Your task to perform on an android device: turn on notifications settings in the gmail app Image 0: 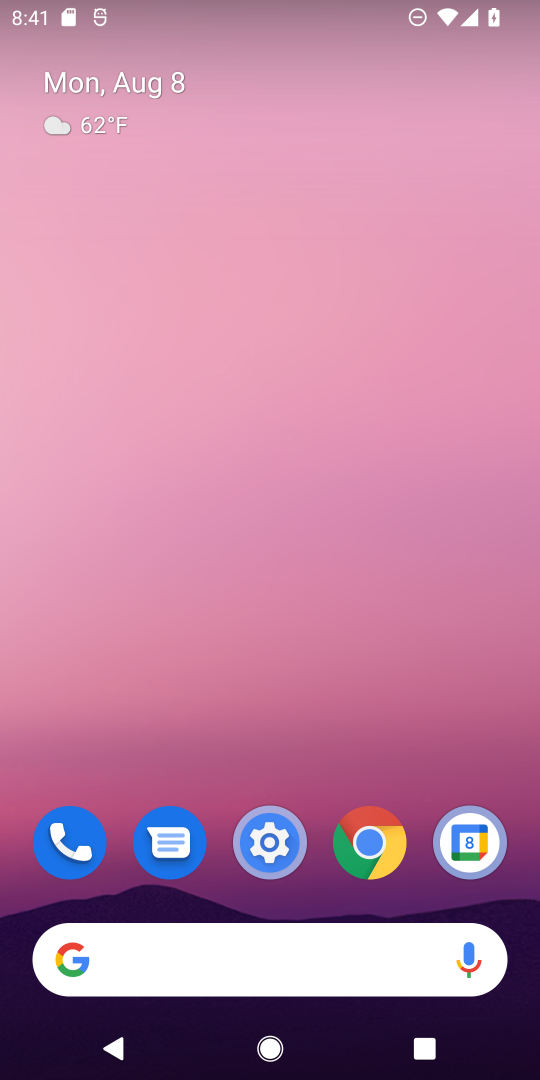
Step 0: click (271, 826)
Your task to perform on an android device: turn on notifications settings in the gmail app Image 1: 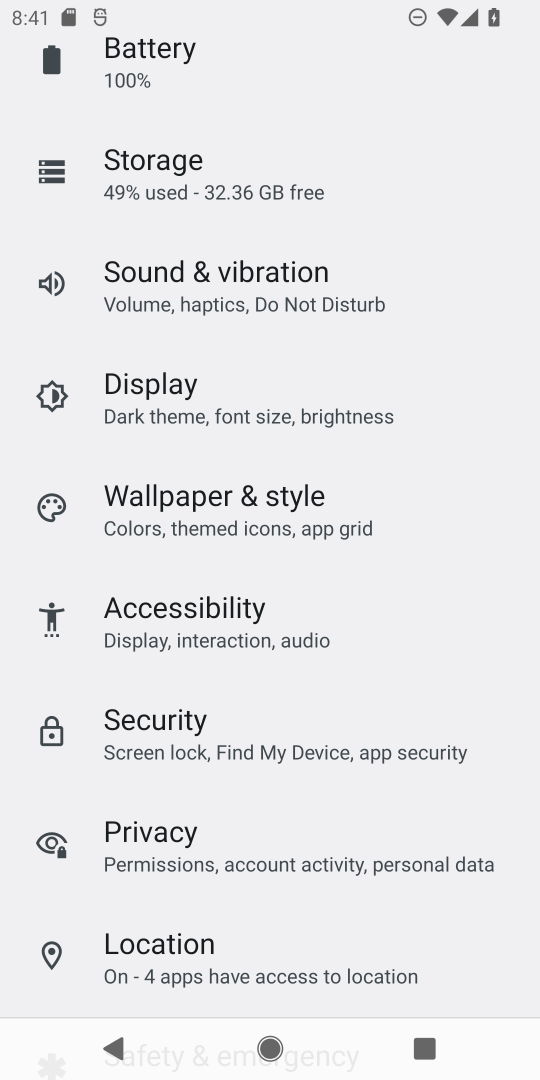
Step 1: press home button
Your task to perform on an android device: turn on notifications settings in the gmail app Image 2: 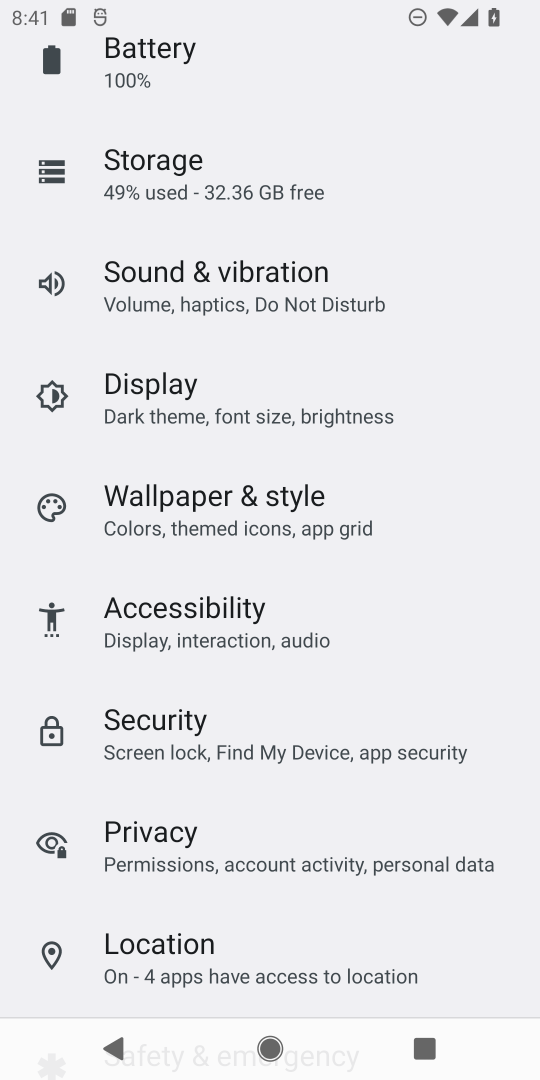
Step 2: press home button
Your task to perform on an android device: turn on notifications settings in the gmail app Image 3: 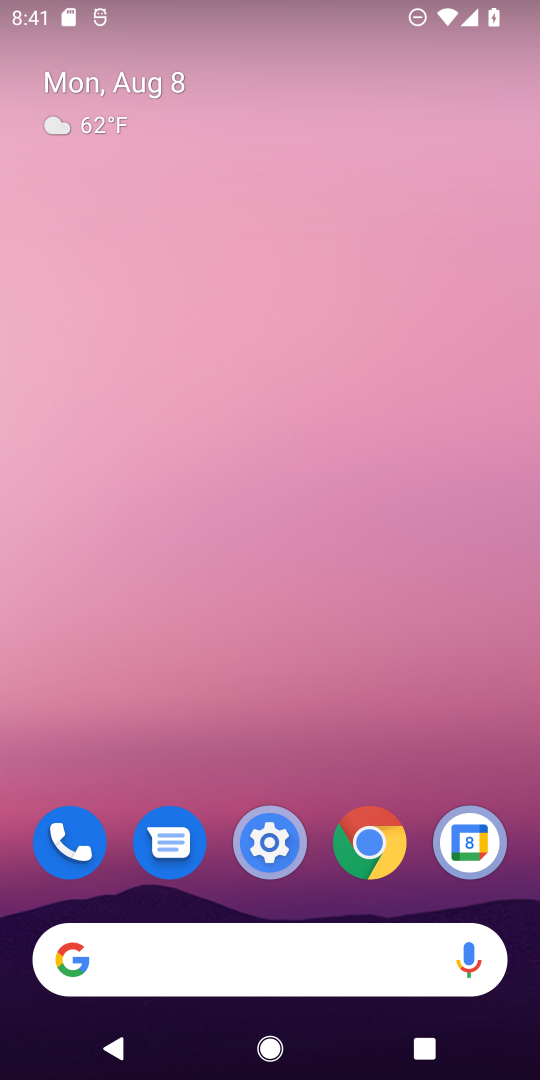
Step 3: drag from (330, 603) to (372, 4)
Your task to perform on an android device: turn on notifications settings in the gmail app Image 4: 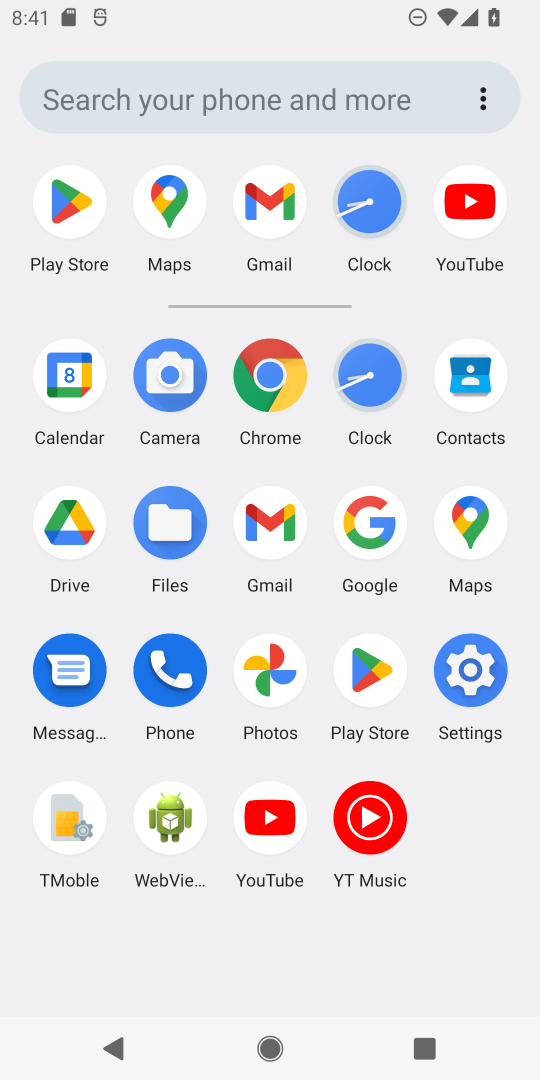
Step 4: click (267, 205)
Your task to perform on an android device: turn on notifications settings in the gmail app Image 5: 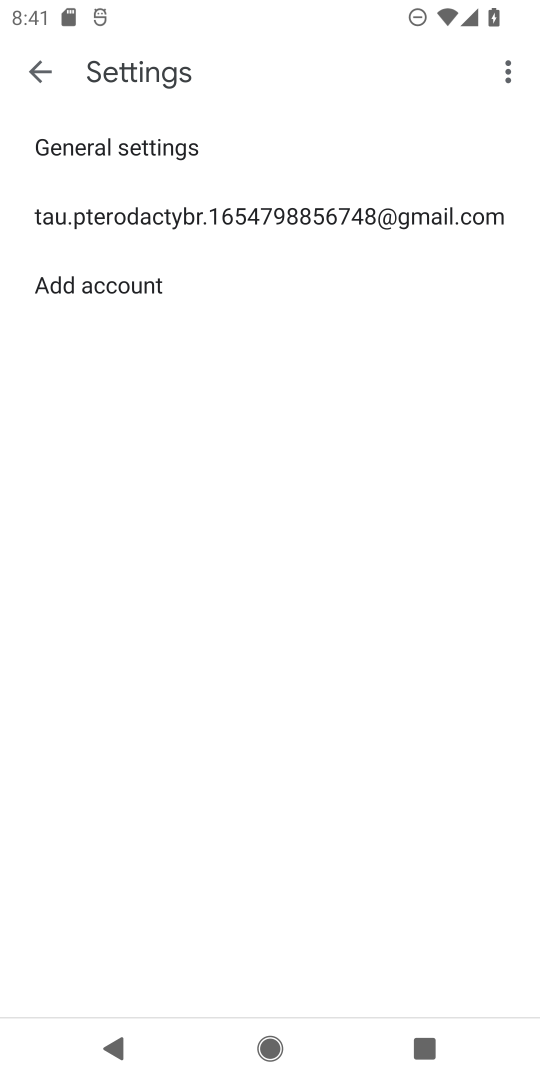
Step 5: click (267, 203)
Your task to perform on an android device: turn on notifications settings in the gmail app Image 6: 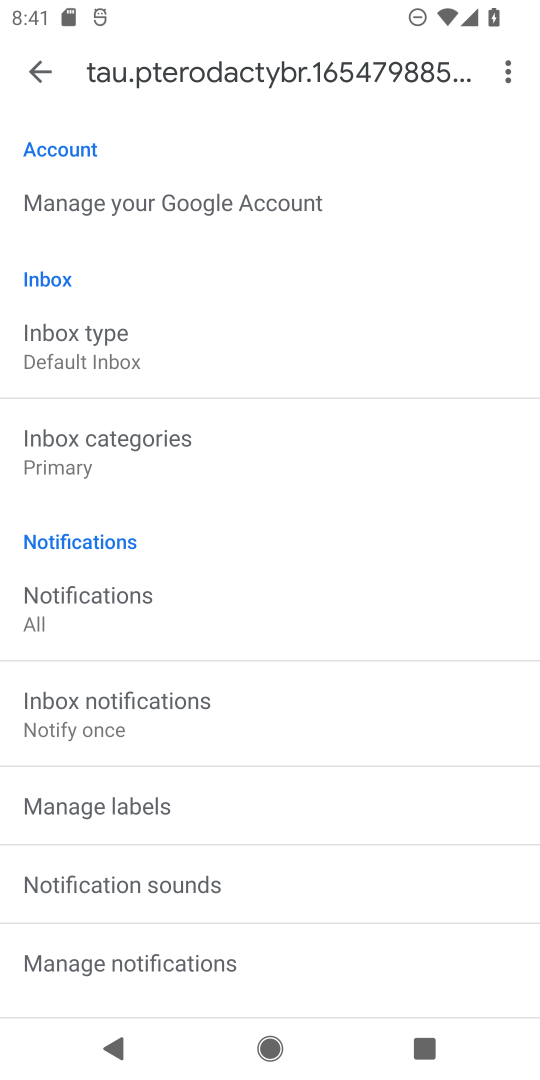
Step 6: click (166, 952)
Your task to perform on an android device: turn on notifications settings in the gmail app Image 7: 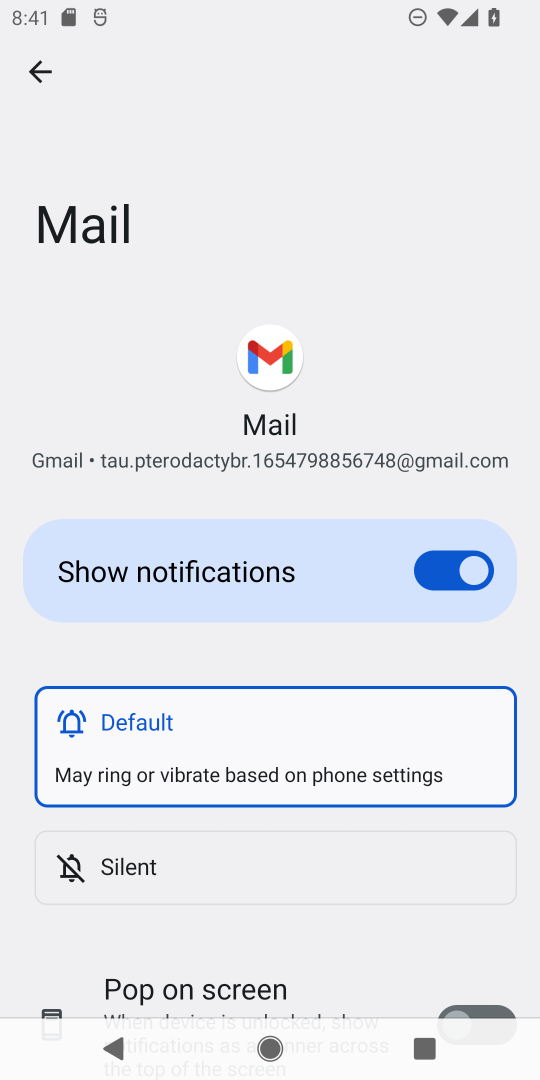
Step 7: task complete